Your task to perform on an android device: delete browsing data in the chrome app Image 0: 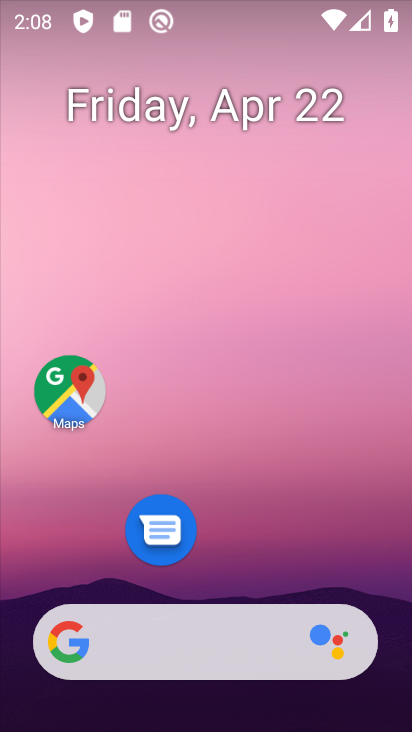
Step 0: drag from (256, 398) to (201, 1)
Your task to perform on an android device: delete browsing data in the chrome app Image 1: 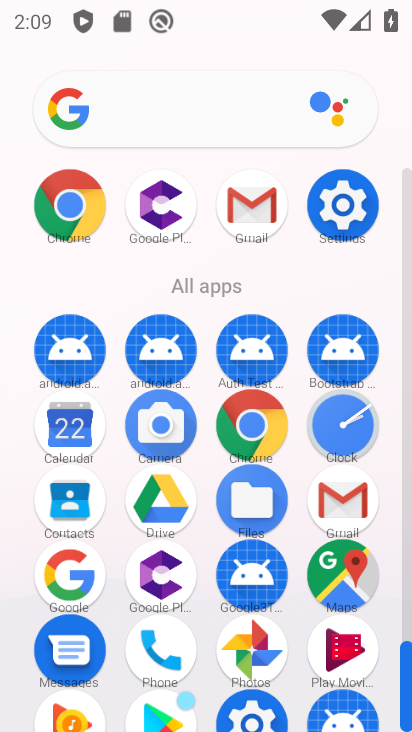
Step 1: click (84, 201)
Your task to perform on an android device: delete browsing data in the chrome app Image 2: 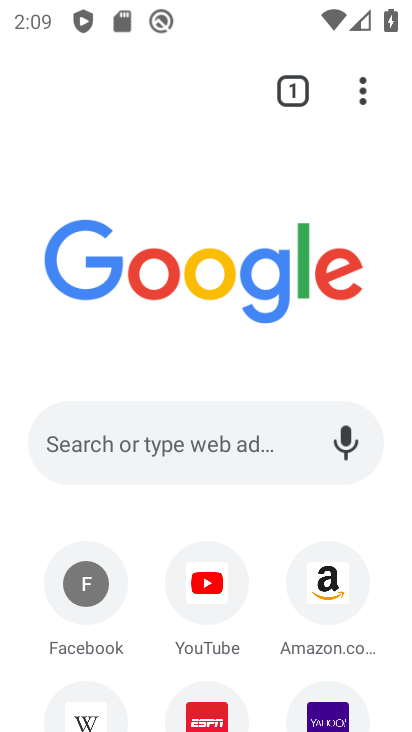
Step 2: click (358, 92)
Your task to perform on an android device: delete browsing data in the chrome app Image 3: 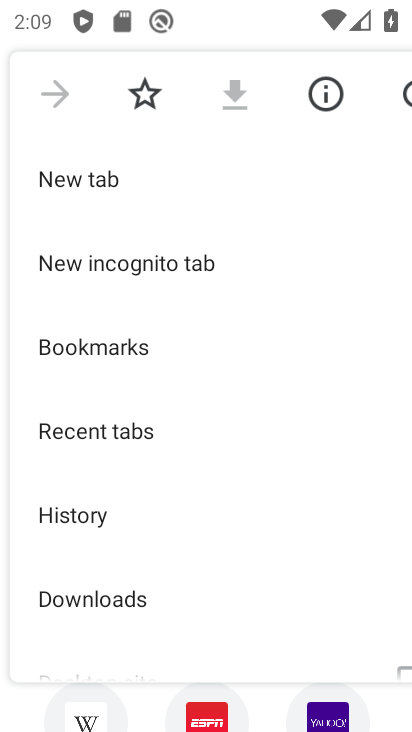
Step 3: click (66, 513)
Your task to perform on an android device: delete browsing data in the chrome app Image 4: 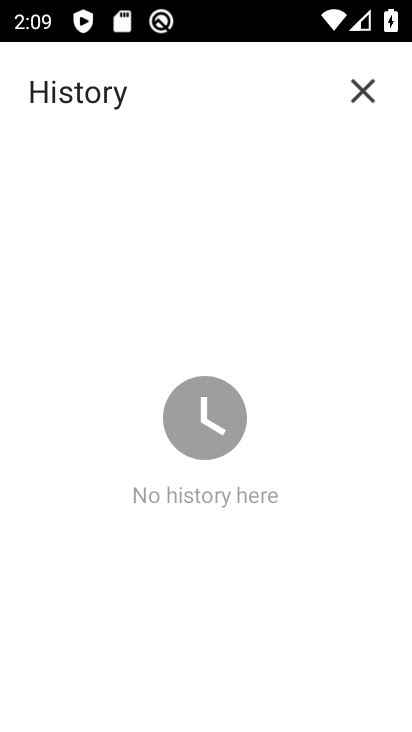
Step 4: task complete